Your task to perform on an android device: Open eBay Image 0: 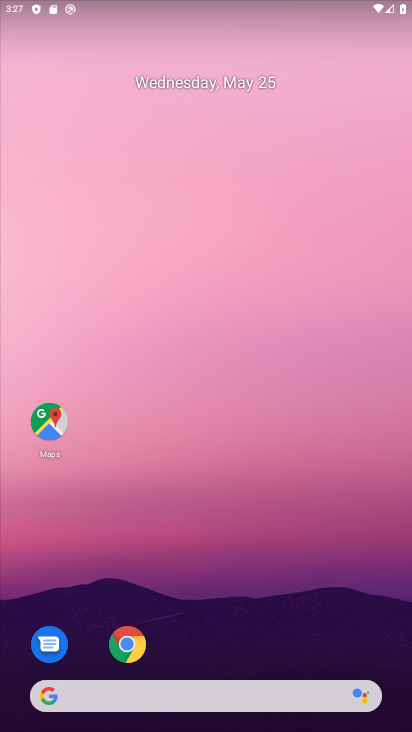
Step 0: click (122, 647)
Your task to perform on an android device: Open eBay Image 1: 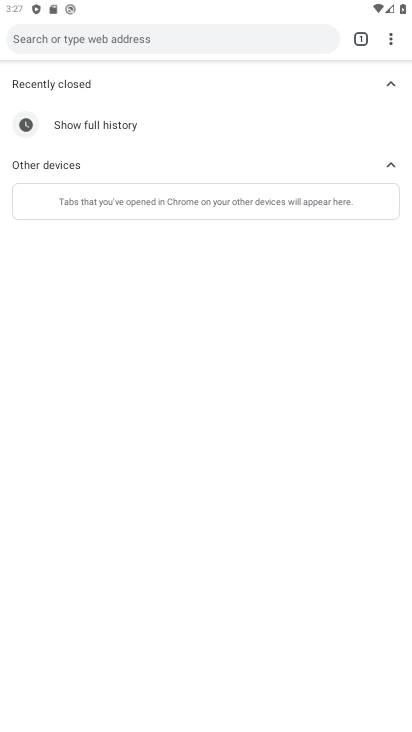
Step 1: click (58, 43)
Your task to perform on an android device: Open eBay Image 2: 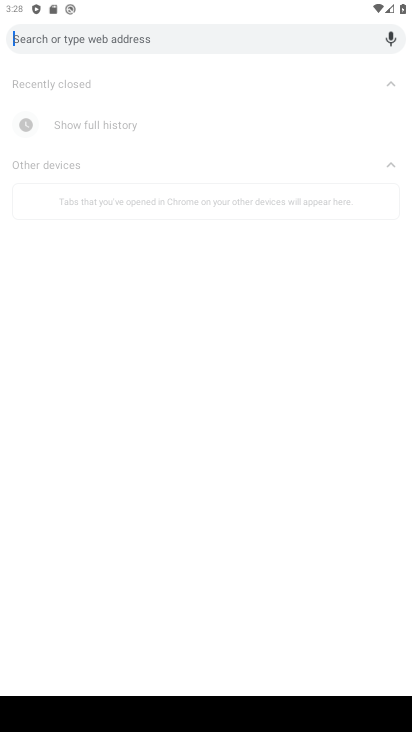
Step 2: type "ebay"
Your task to perform on an android device: Open eBay Image 3: 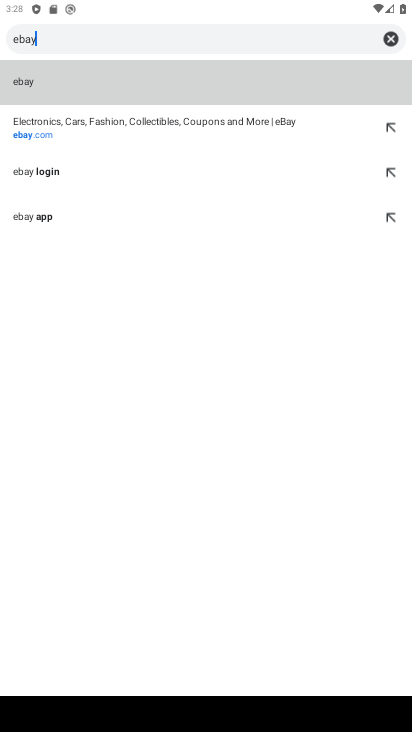
Step 3: click (29, 81)
Your task to perform on an android device: Open eBay Image 4: 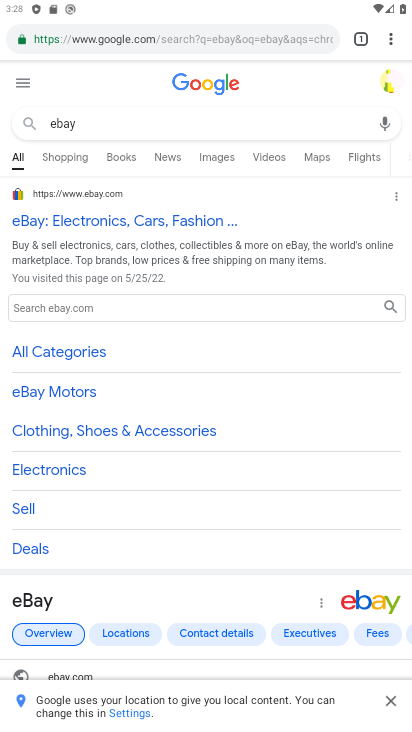
Step 4: click (52, 219)
Your task to perform on an android device: Open eBay Image 5: 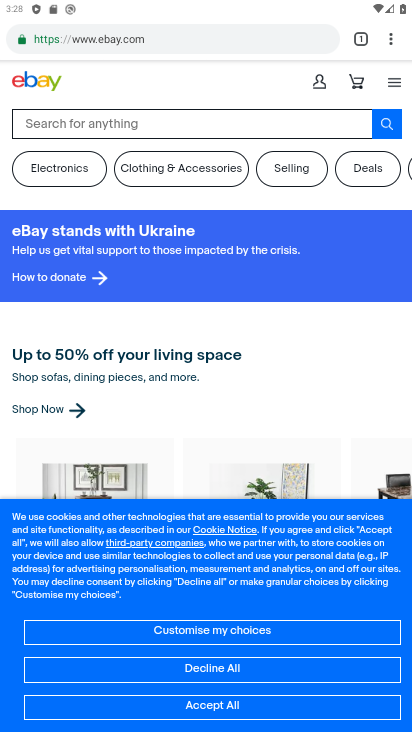
Step 5: task complete